Your task to perform on an android device: Open the map Image 0: 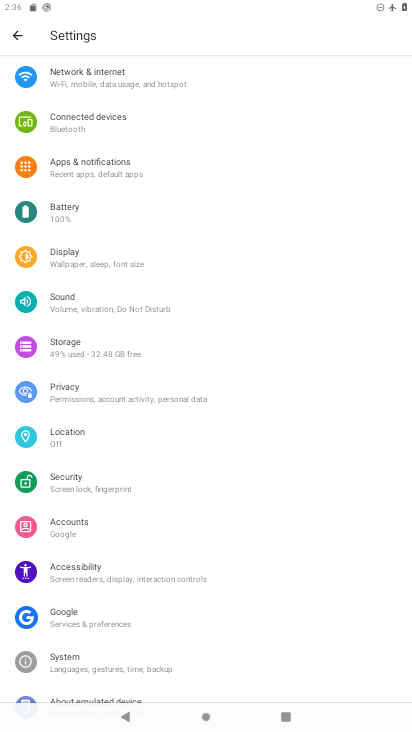
Step 0: press home button
Your task to perform on an android device: Open the map Image 1: 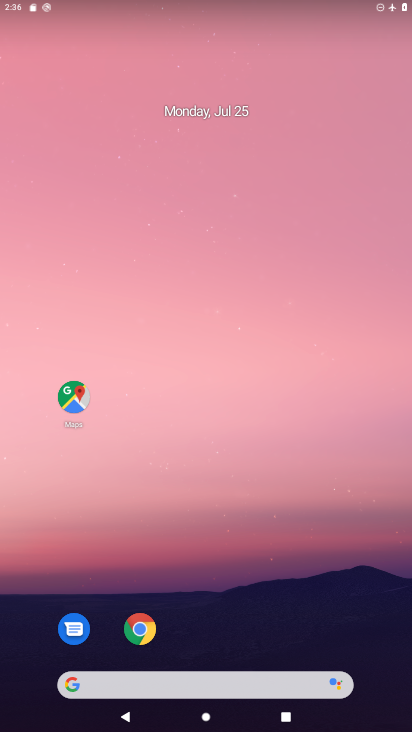
Step 1: drag from (286, 623) to (186, 239)
Your task to perform on an android device: Open the map Image 2: 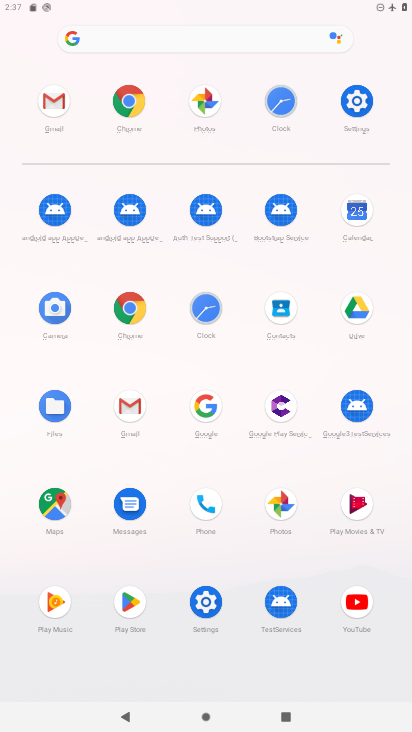
Step 2: click (56, 509)
Your task to perform on an android device: Open the map Image 3: 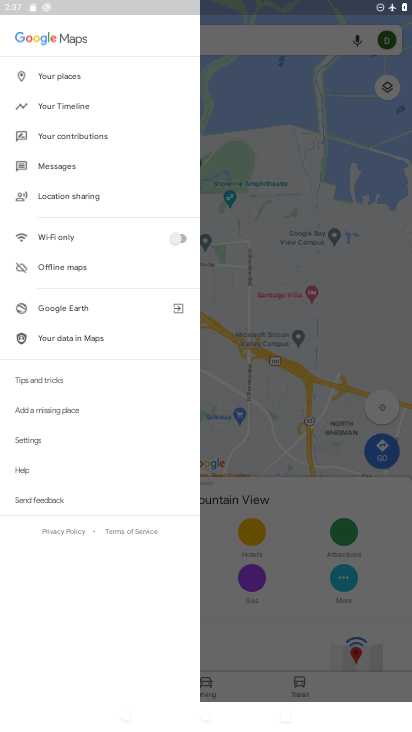
Step 3: task complete